Your task to perform on an android device: See recent photos Image 0: 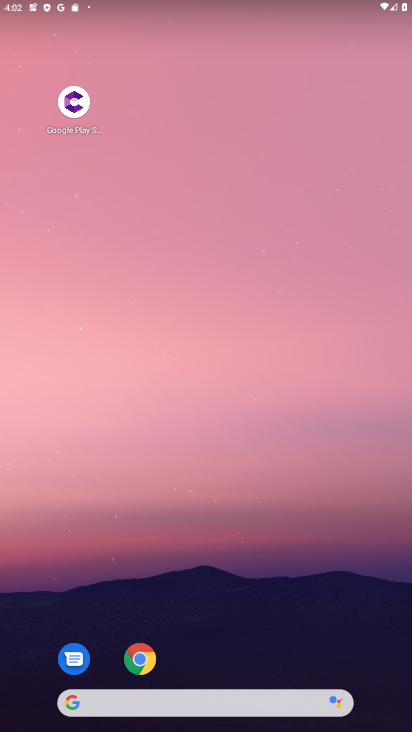
Step 0: drag from (369, 666) to (295, 25)
Your task to perform on an android device: See recent photos Image 1: 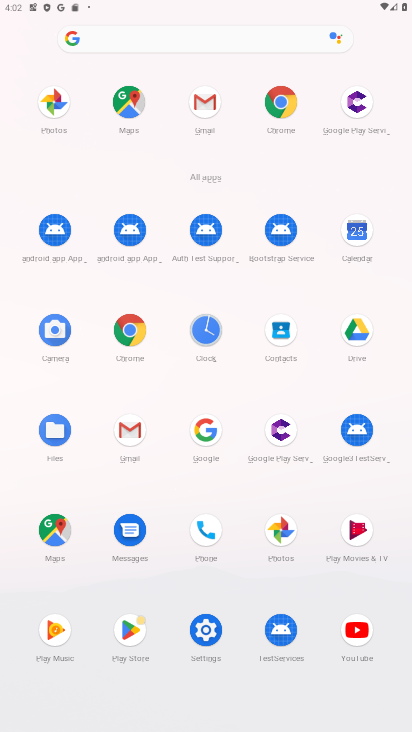
Step 1: click (281, 533)
Your task to perform on an android device: See recent photos Image 2: 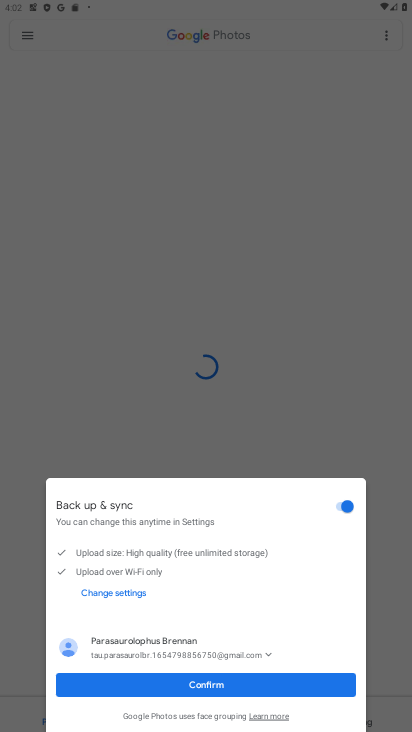
Step 2: click (202, 685)
Your task to perform on an android device: See recent photos Image 3: 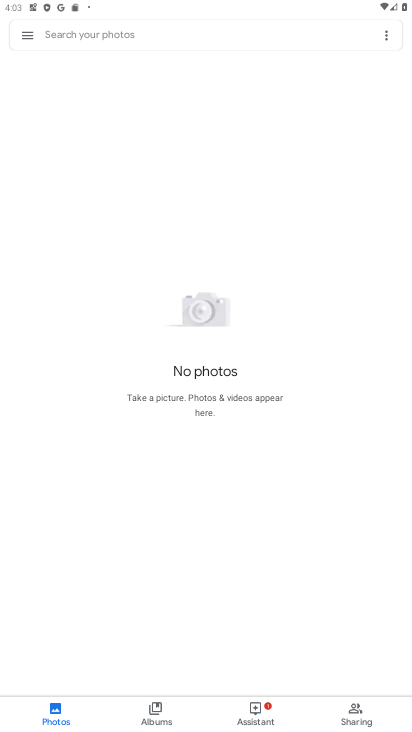
Step 3: task complete